Your task to perform on an android device: open chrome and create a bookmark for the current page Image 0: 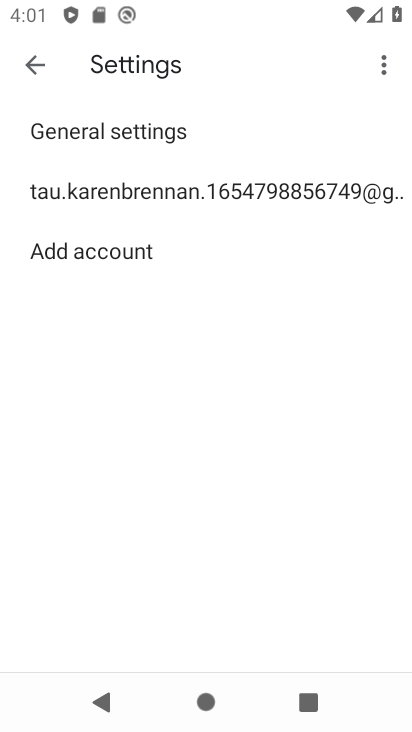
Step 0: press home button
Your task to perform on an android device: open chrome and create a bookmark for the current page Image 1: 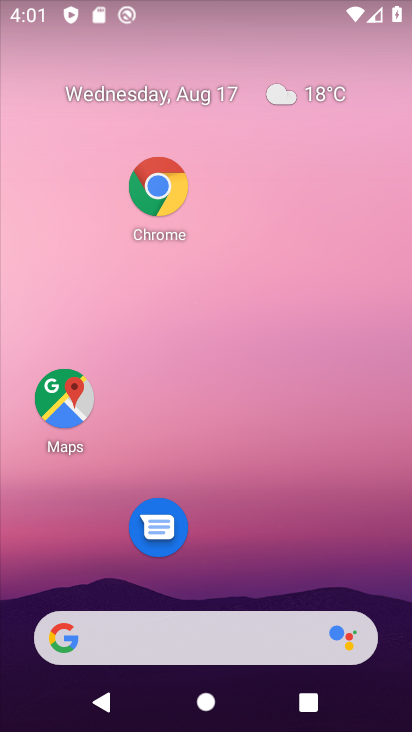
Step 1: click (166, 184)
Your task to perform on an android device: open chrome and create a bookmark for the current page Image 2: 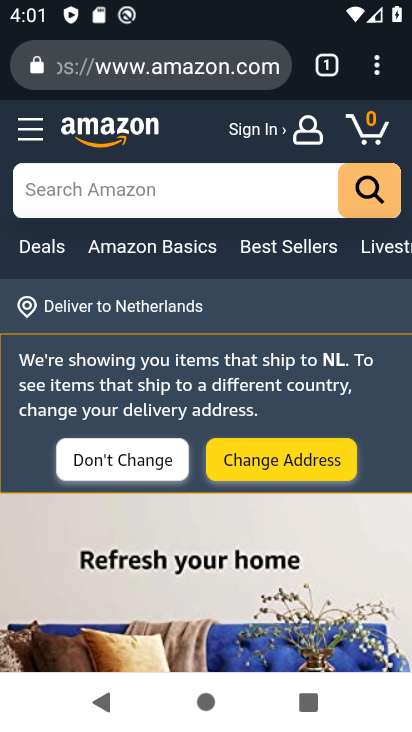
Step 2: click (387, 70)
Your task to perform on an android device: open chrome and create a bookmark for the current page Image 3: 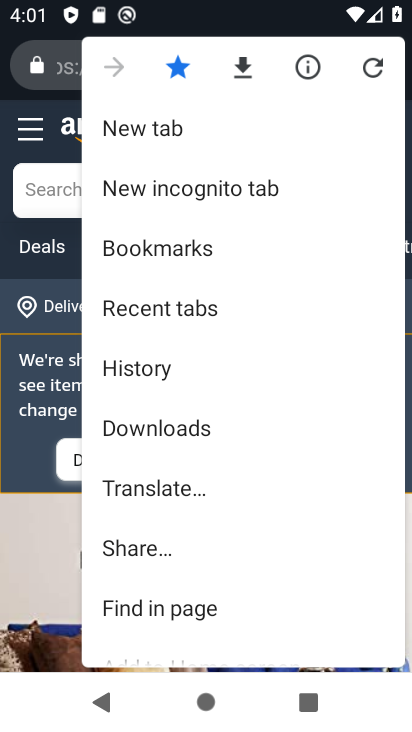
Step 3: task complete